Your task to perform on an android device: When is my next appointment? Image 0: 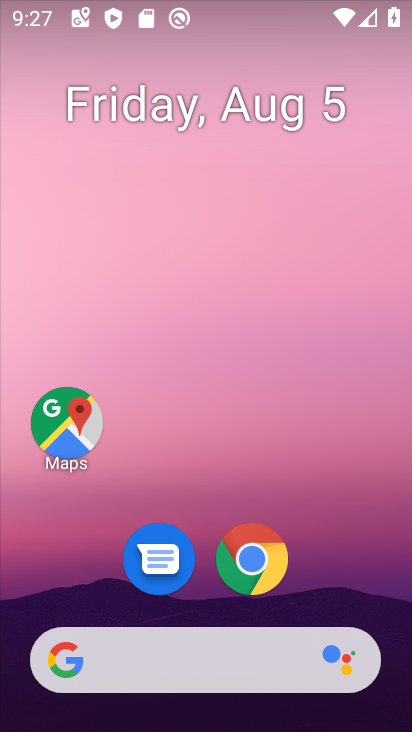
Step 0: drag from (332, 599) to (280, 29)
Your task to perform on an android device: When is my next appointment? Image 1: 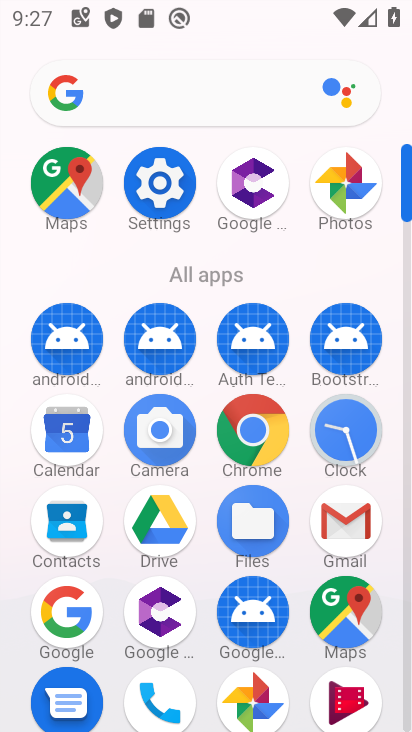
Step 1: drag from (69, 430) to (146, 222)
Your task to perform on an android device: When is my next appointment? Image 2: 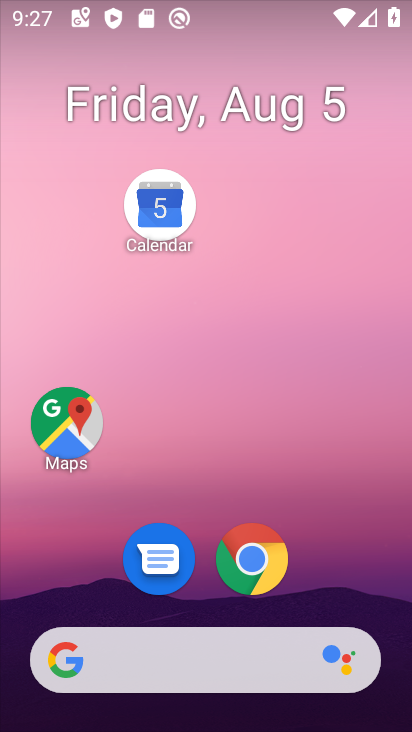
Step 2: click (161, 212)
Your task to perform on an android device: When is my next appointment? Image 3: 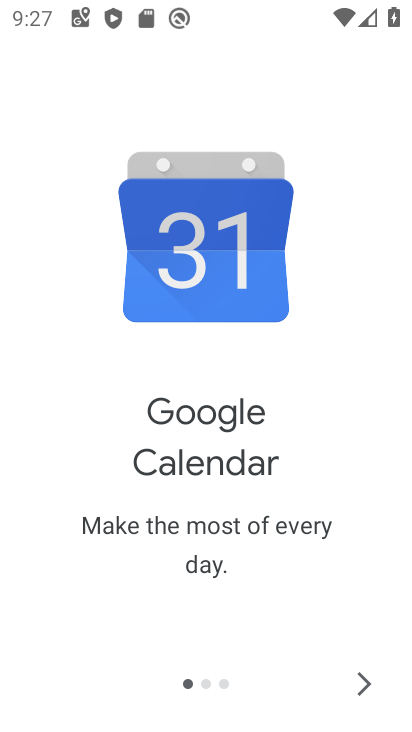
Step 3: click (374, 699)
Your task to perform on an android device: When is my next appointment? Image 4: 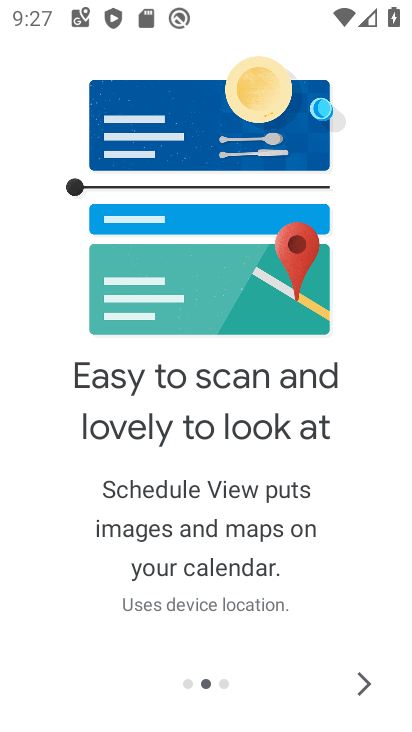
Step 4: click (374, 699)
Your task to perform on an android device: When is my next appointment? Image 5: 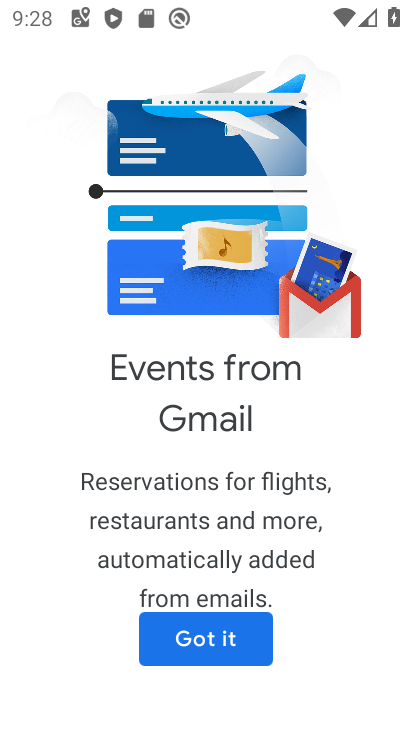
Step 5: click (258, 636)
Your task to perform on an android device: When is my next appointment? Image 6: 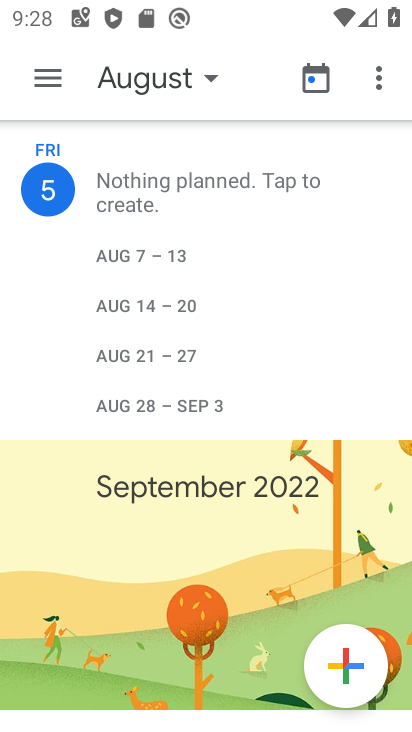
Step 6: click (166, 73)
Your task to perform on an android device: When is my next appointment? Image 7: 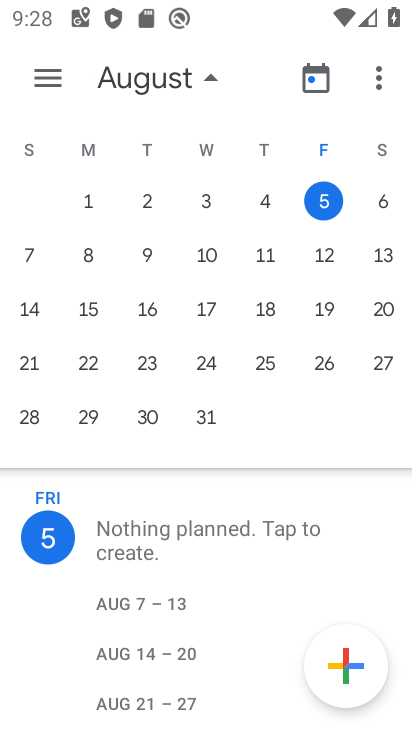
Step 7: click (379, 197)
Your task to perform on an android device: When is my next appointment? Image 8: 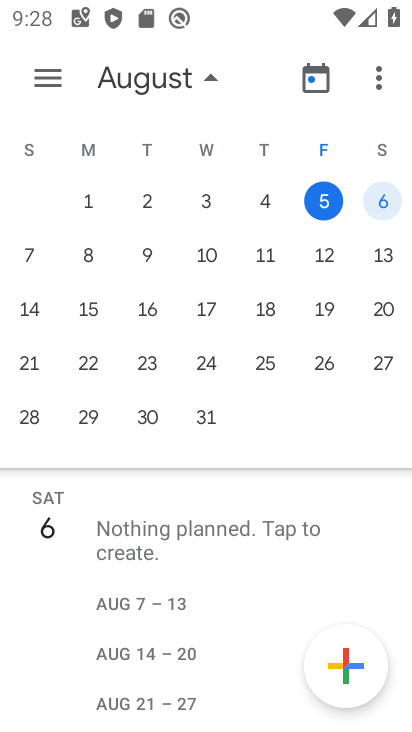
Step 8: click (379, 197)
Your task to perform on an android device: When is my next appointment? Image 9: 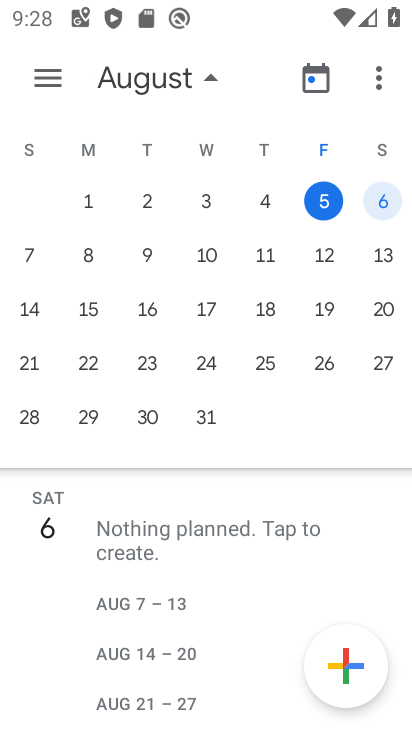
Step 9: click (380, 201)
Your task to perform on an android device: When is my next appointment? Image 10: 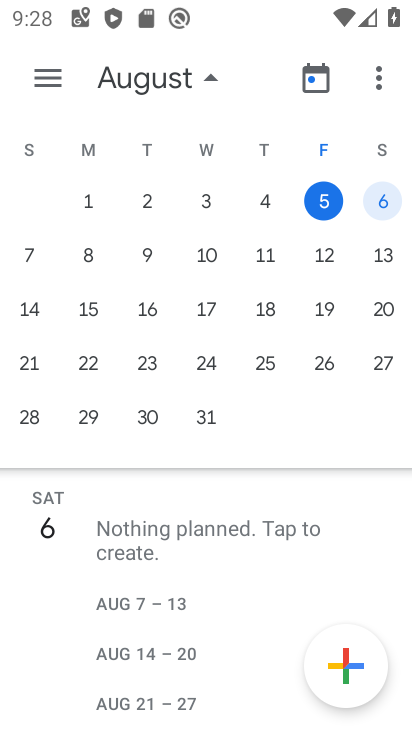
Step 10: task complete